Your task to perform on an android device: toggle priority inbox in the gmail app Image 0: 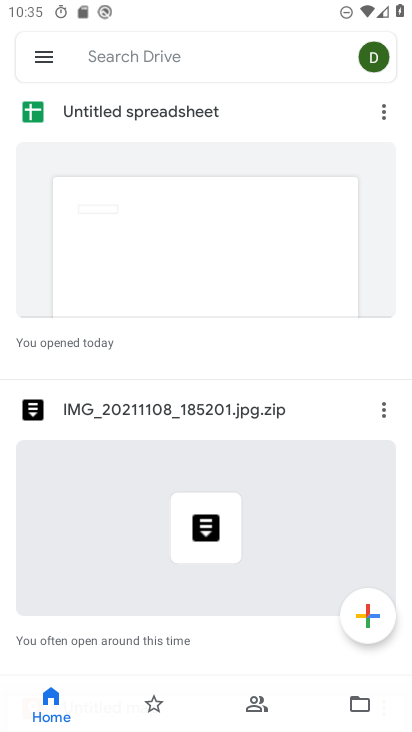
Step 0: press home button
Your task to perform on an android device: toggle priority inbox in the gmail app Image 1: 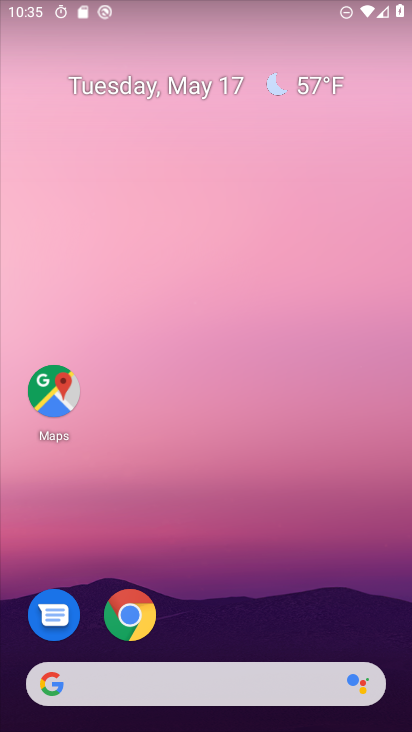
Step 1: drag from (239, 564) to (168, 106)
Your task to perform on an android device: toggle priority inbox in the gmail app Image 2: 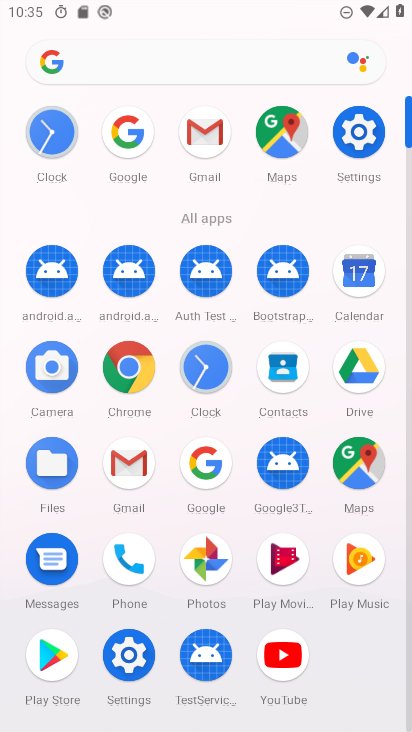
Step 2: click (134, 471)
Your task to perform on an android device: toggle priority inbox in the gmail app Image 3: 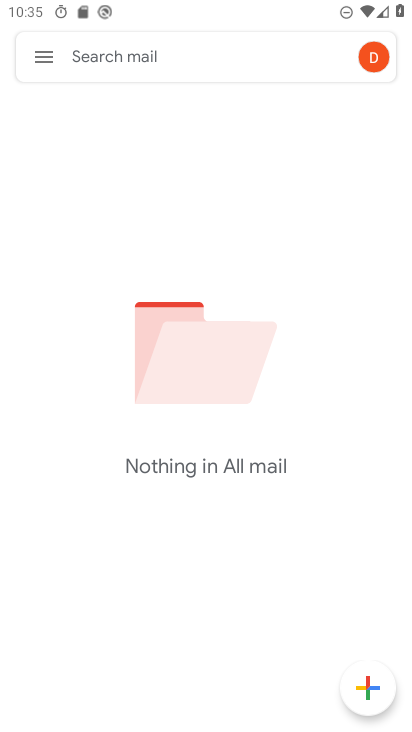
Step 3: click (45, 49)
Your task to perform on an android device: toggle priority inbox in the gmail app Image 4: 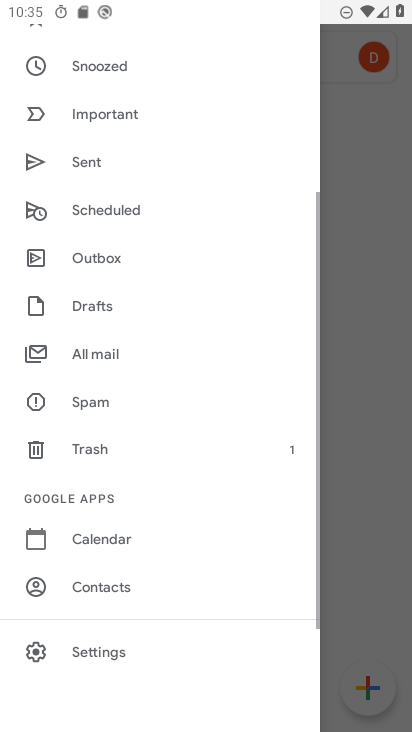
Step 4: click (98, 653)
Your task to perform on an android device: toggle priority inbox in the gmail app Image 5: 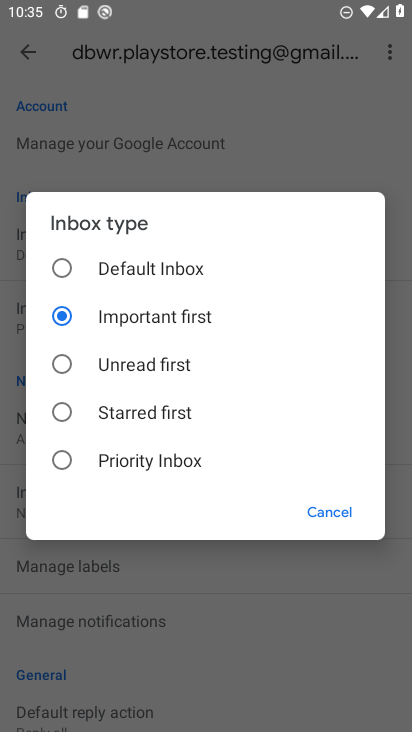
Step 5: click (162, 458)
Your task to perform on an android device: toggle priority inbox in the gmail app Image 6: 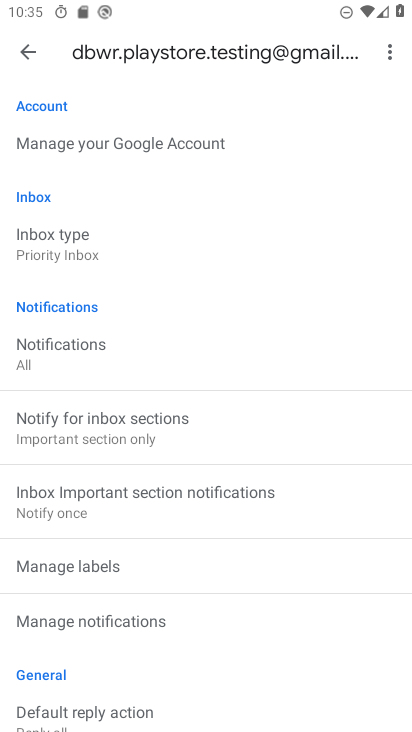
Step 6: task complete